Your task to perform on an android device: Show the shopping cart on target. Search for "usb-a" on target, select the first entry, add it to the cart, then select checkout. Image 0: 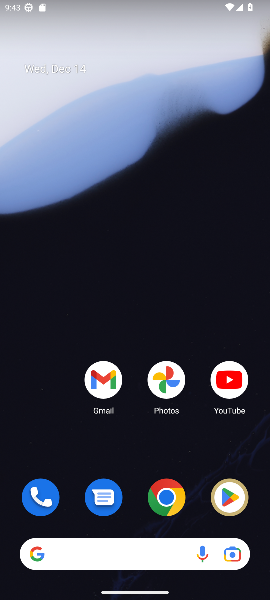
Step 0: click (163, 501)
Your task to perform on an android device: Show the shopping cart on target. Search for "usb-a" on target, select the first entry, add it to the cart, then select checkout. Image 1: 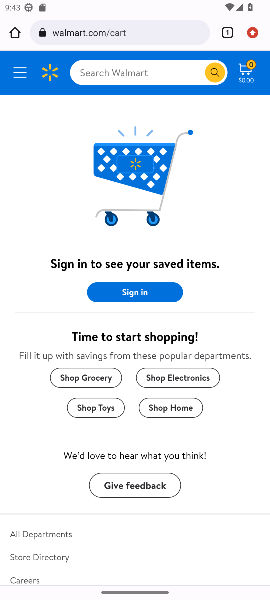
Step 1: click (105, 40)
Your task to perform on an android device: Show the shopping cart on target. Search for "usb-a" on target, select the first entry, add it to the cart, then select checkout. Image 2: 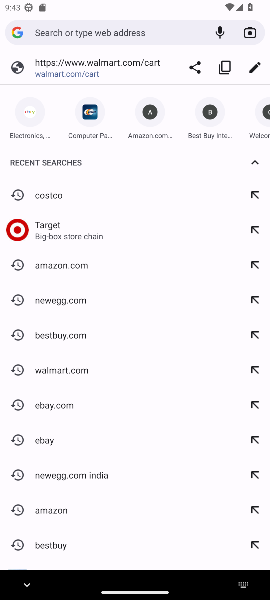
Step 2: type "target"
Your task to perform on an android device: Show the shopping cart on target. Search for "usb-a" on target, select the first entry, add it to the cart, then select checkout. Image 3: 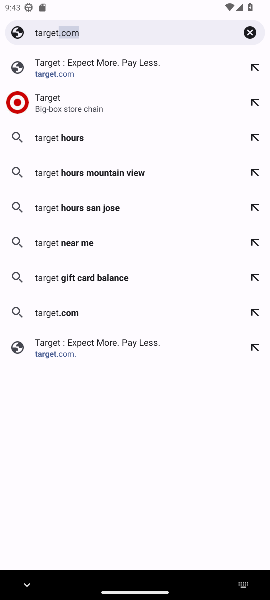
Step 3: click (69, 71)
Your task to perform on an android device: Show the shopping cart on target. Search for "usb-a" on target, select the first entry, add it to the cart, then select checkout. Image 4: 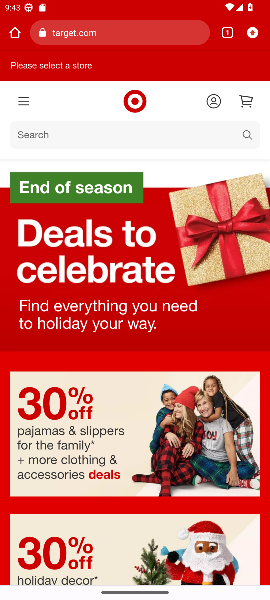
Step 4: click (131, 134)
Your task to perform on an android device: Show the shopping cart on target. Search for "usb-a" on target, select the first entry, add it to the cart, then select checkout. Image 5: 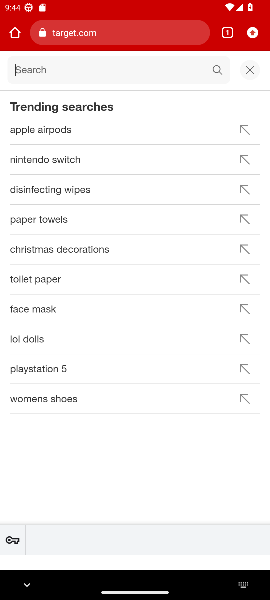
Step 5: type "usb-a"
Your task to perform on an android device: Show the shopping cart on target. Search for "usb-a" on target, select the first entry, add it to the cart, then select checkout. Image 6: 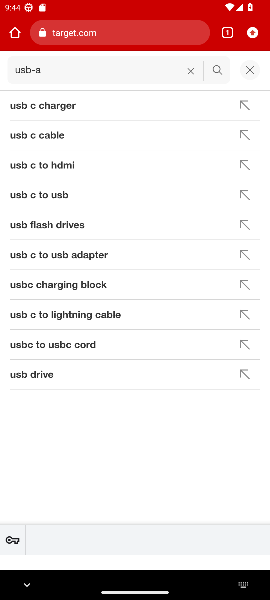
Step 6: press enter
Your task to perform on an android device: Show the shopping cart on target. Search for "usb-a" on target, select the first entry, add it to the cart, then select checkout. Image 7: 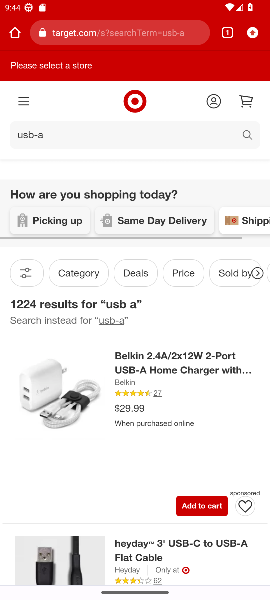
Step 7: click (117, 372)
Your task to perform on an android device: Show the shopping cart on target. Search for "usb-a" on target, select the first entry, add it to the cart, then select checkout. Image 8: 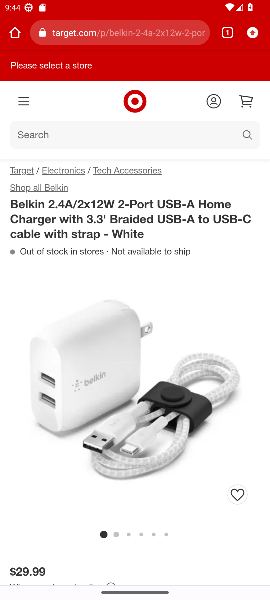
Step 8: drag from (193, 477) to (163, 111)
Your task to perform on an android device: Show the shopping cart on target. Search for "usb-a" on target, select the first entry, add it to the cart, then select checkout. Image 9: 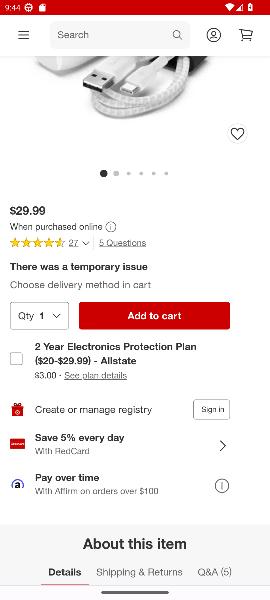
Step 9: click (129, 313)
Your task to perform on an android device: Show the shopping cart on target. Search for "usb-a" on target, select the first entry, add it to the cart, then select checkout. Image 10: 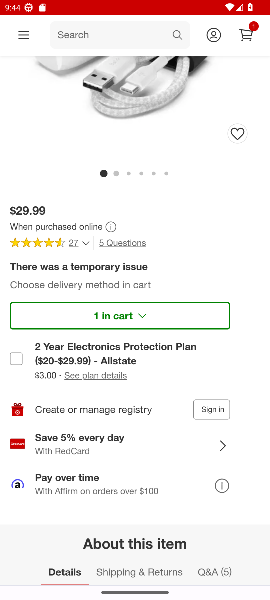
Step 10: click (245, 31)
Your task to perform on an android device: Show the shopping cart on target. Search for "usb-a" on target, select the first entry, add it to the cart, then select checkout. Image 11: 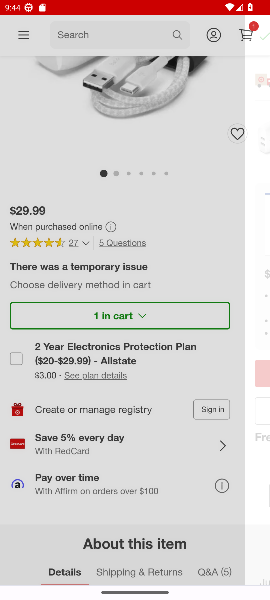
Step 11: click (244, 32)
Your task to perform on an android device: Show the shopping cart on target. Search for "usb-a" on target, select the first entry, add it to the cart, then select checkout. Image 12: 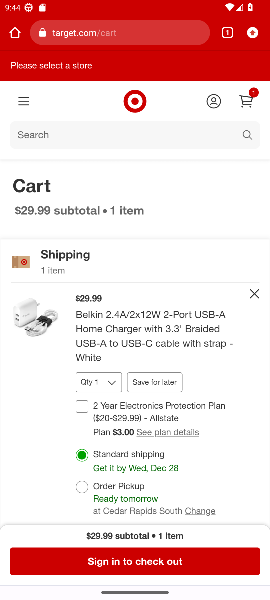
Step 12: click (171, 560)
Your task to perform on an android device: Show the shopping cart on target. Search for "usb-a" on target, select the first entry, add it to the cart, then select checkout. Image 13: 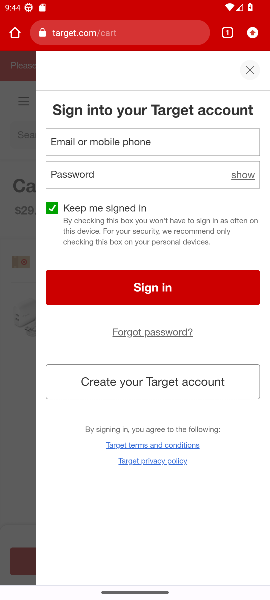
Step 13: task complete